Your task to perform on an android device: Search for a tv stand on Ikea Image 0: 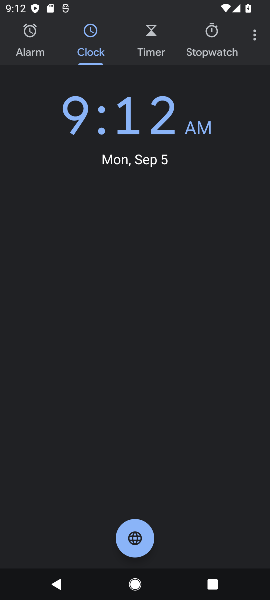
Step 0: press home button
Your task to perform on an android device: Search for a tv stand on Ikea Image 1: 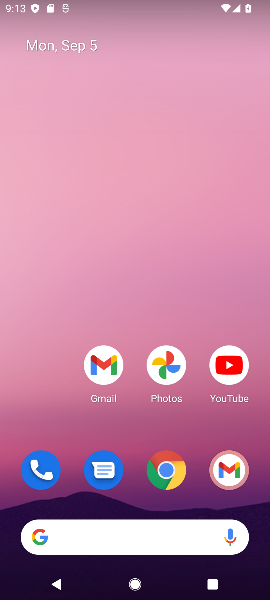
Step 1: click (128, 532)
Your task to perform on an android device: Search for a tv stand on Ikea Image 2: 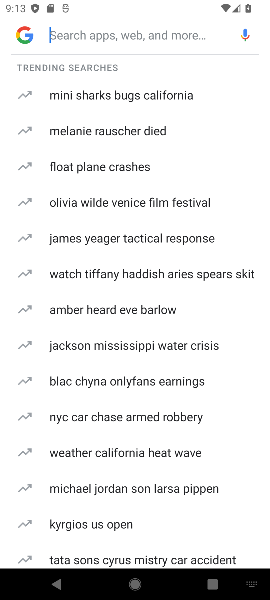
Step 2: type "ikea"
Your task to perform on an android device: Search for a tv stand on Ikea Image 3: 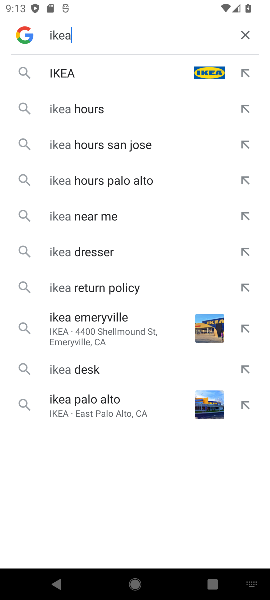
Step 3: click (61, 69)
Your task to perform on an android device: Search for a tv stand on Ikea Image 4: 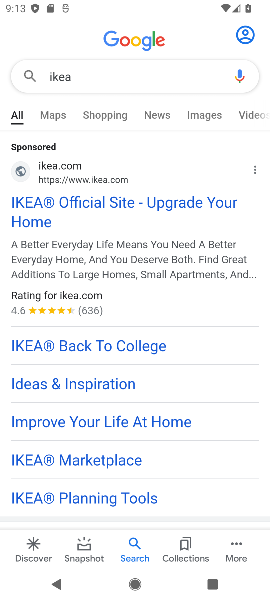
Step 4: click (31, 197)
Your task to perform on an android device: Search for a tv stand on Ikea Image 5: 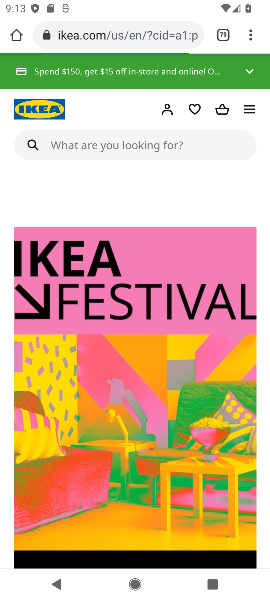
Step 5: click (110, 142)
Your task to perform on an android device: Search for a tv stand on Ikea Image 6: 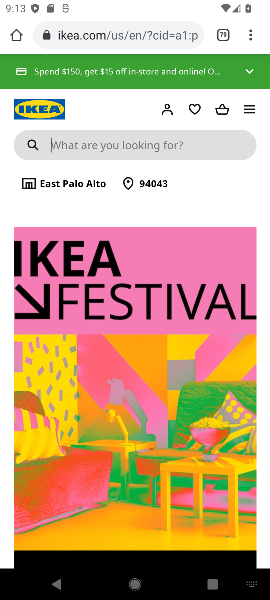
Step 6: type "tv stand"
Your task to perform on an android device: Search for a tv stand on Ikea Image 7: 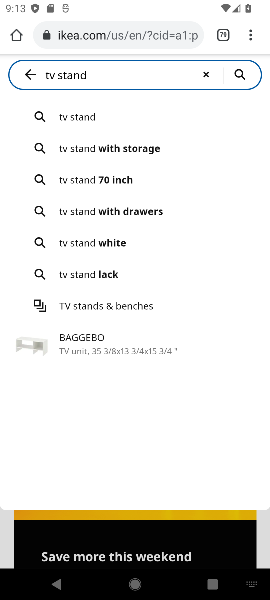
Step 7: click (242, 71)
Your task to perform on an android device: Search for a tv stand on Ikea Image 8: 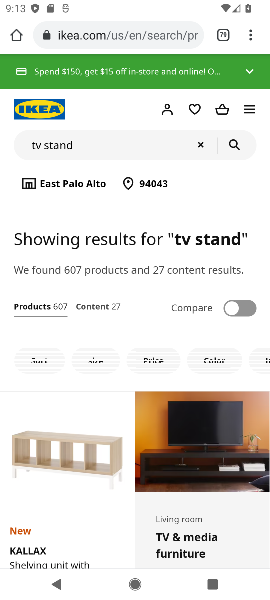
Step 8: task complete